Your task to perform on an android device: Open a new Chrome incognito window Image 0: 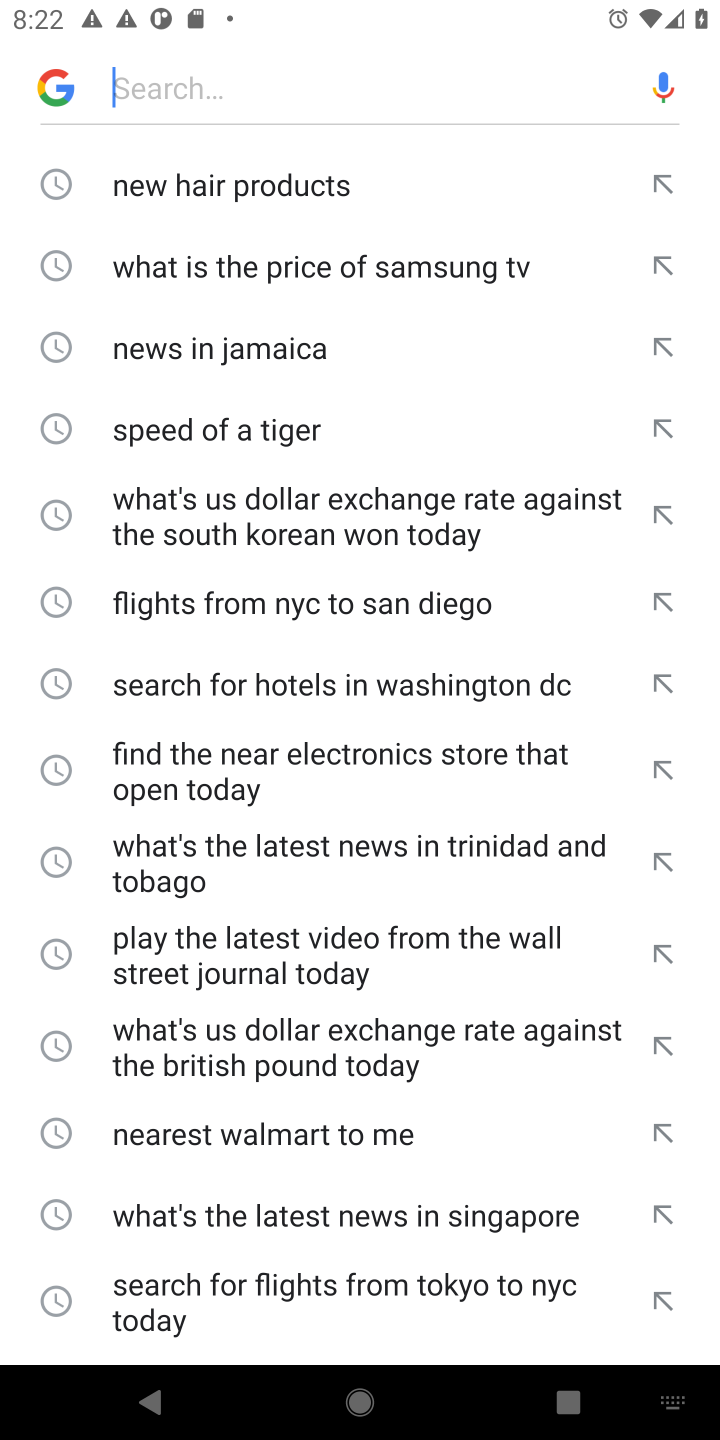
Step 0: press home button
Your task to perform on an android device: Open a new Chrome incognito window Image 1: 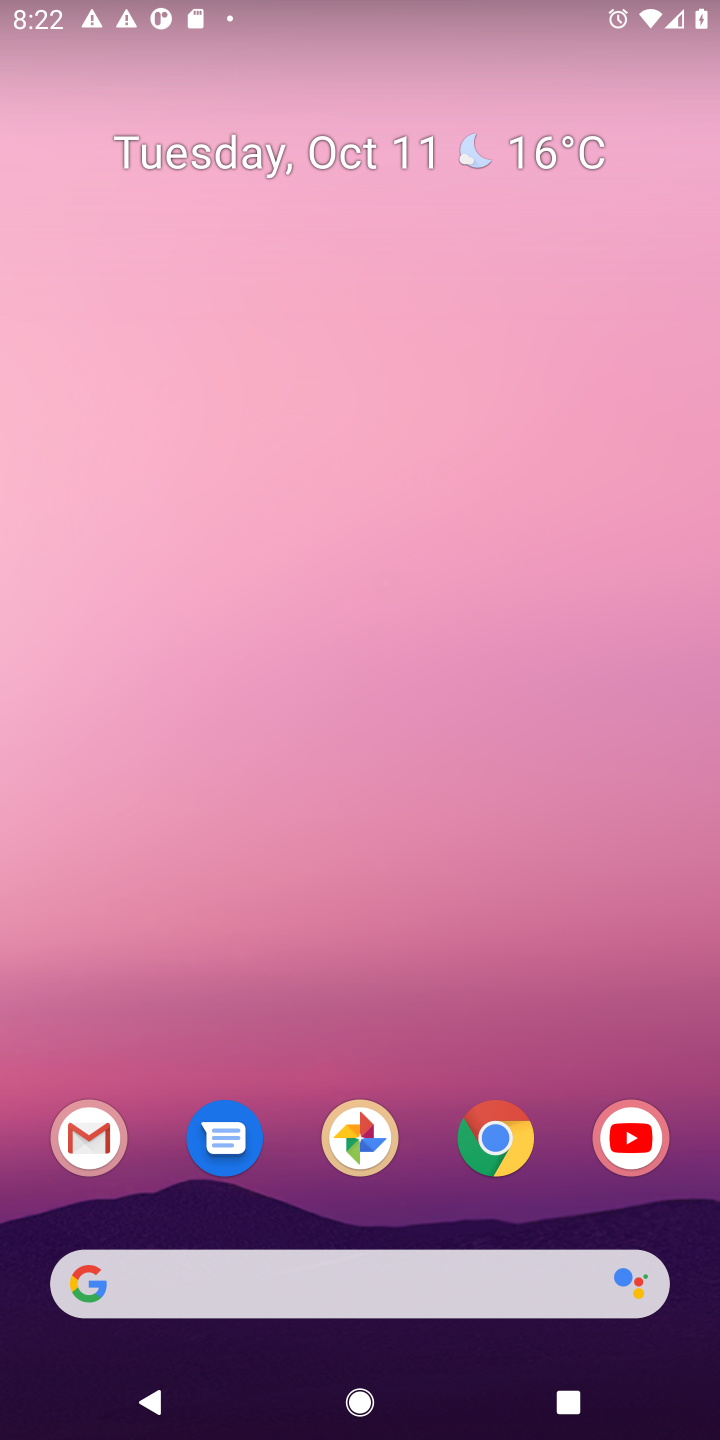
Step 1: click (491, 1156)
Your task to perform on an android device: Open a new Chrome incognito window Image 2: 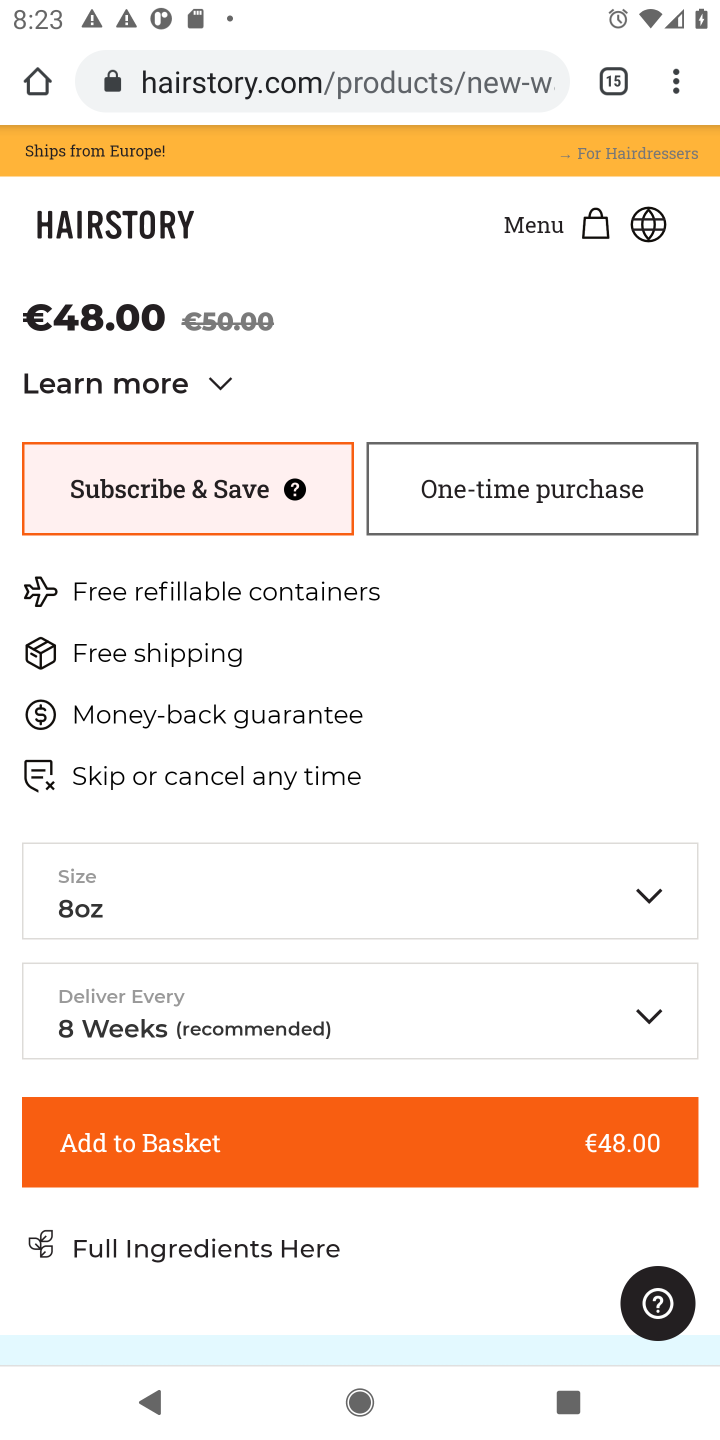
Step 2: click (668, 84)
Your task to perform on an android device: Open a new Chrome incognito window Image 3: 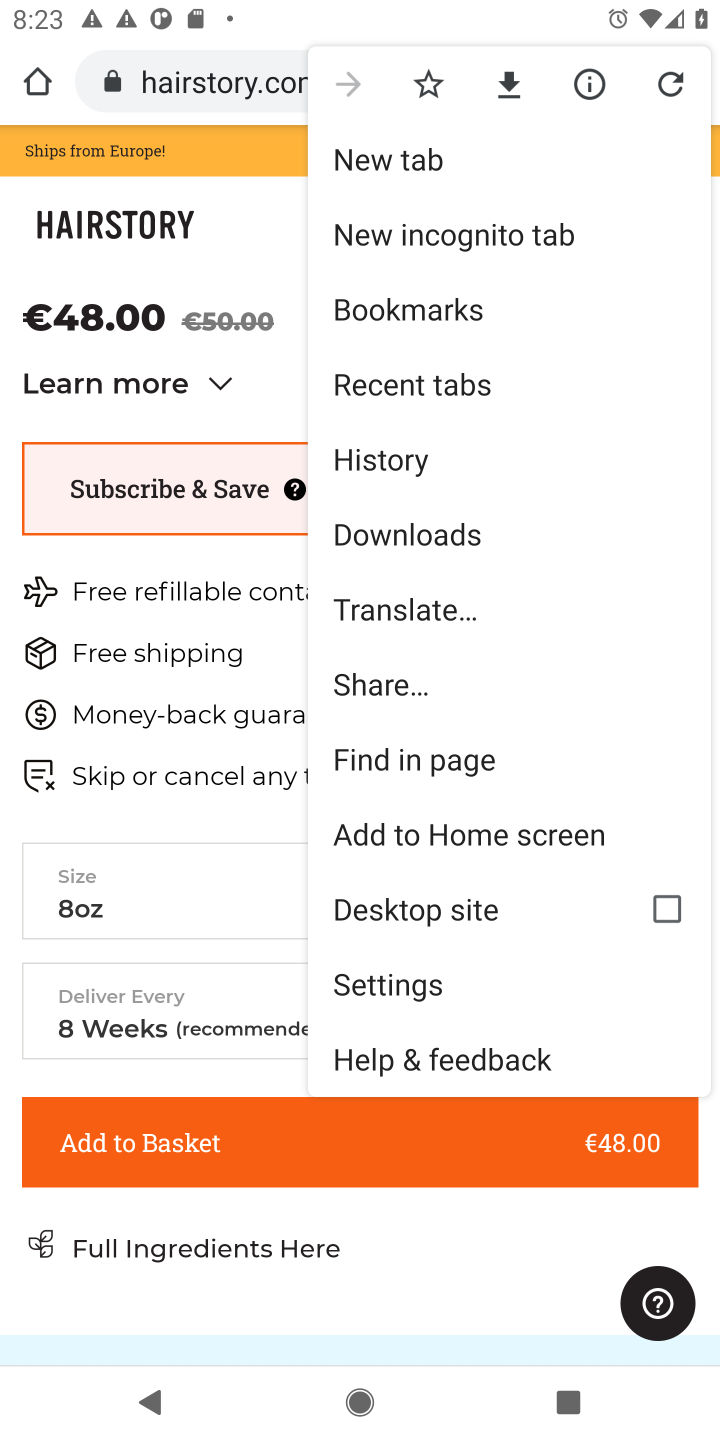
Step 3: click (418, 156)
Your task to perform on an android device: Open a new Chrome incognito window Image 4: 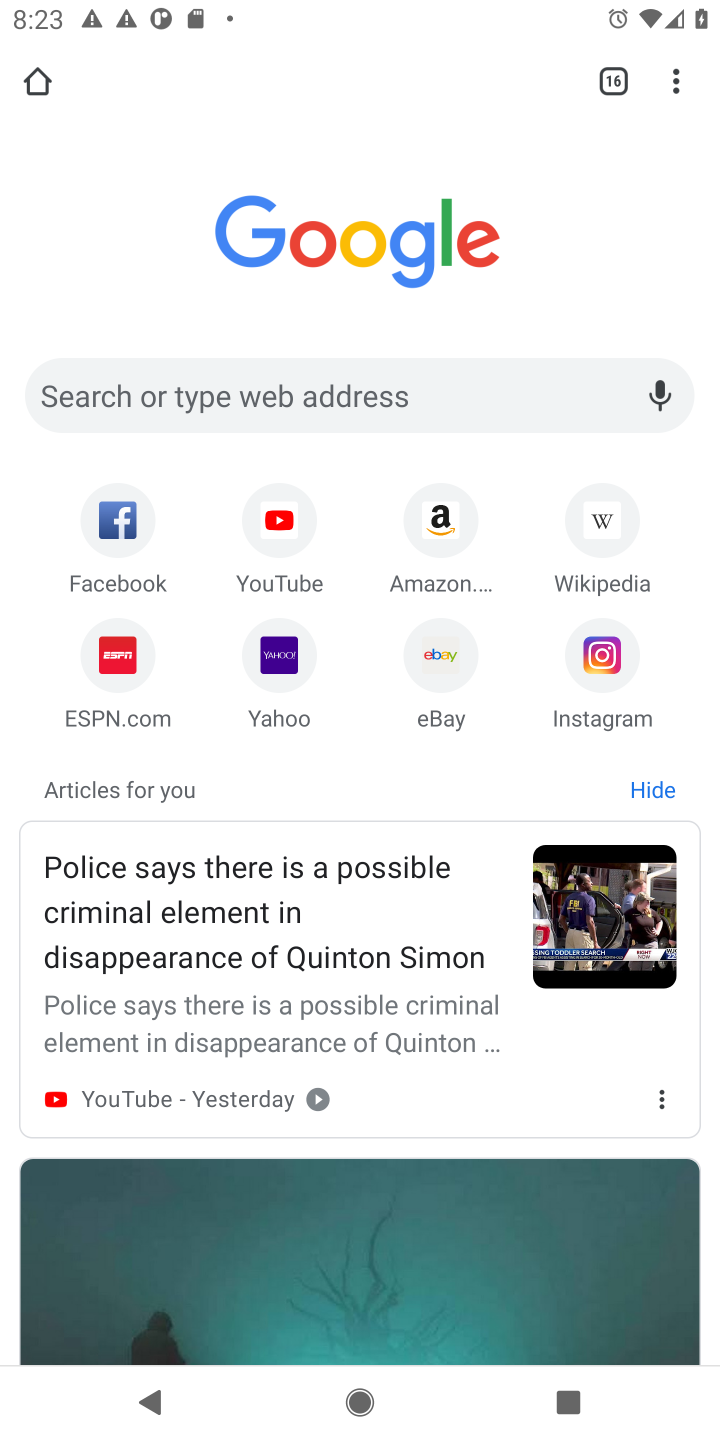
Step 4: click (669, 81)
Your task to perform on an android device: Open a new Chrome incognito window Image 5: 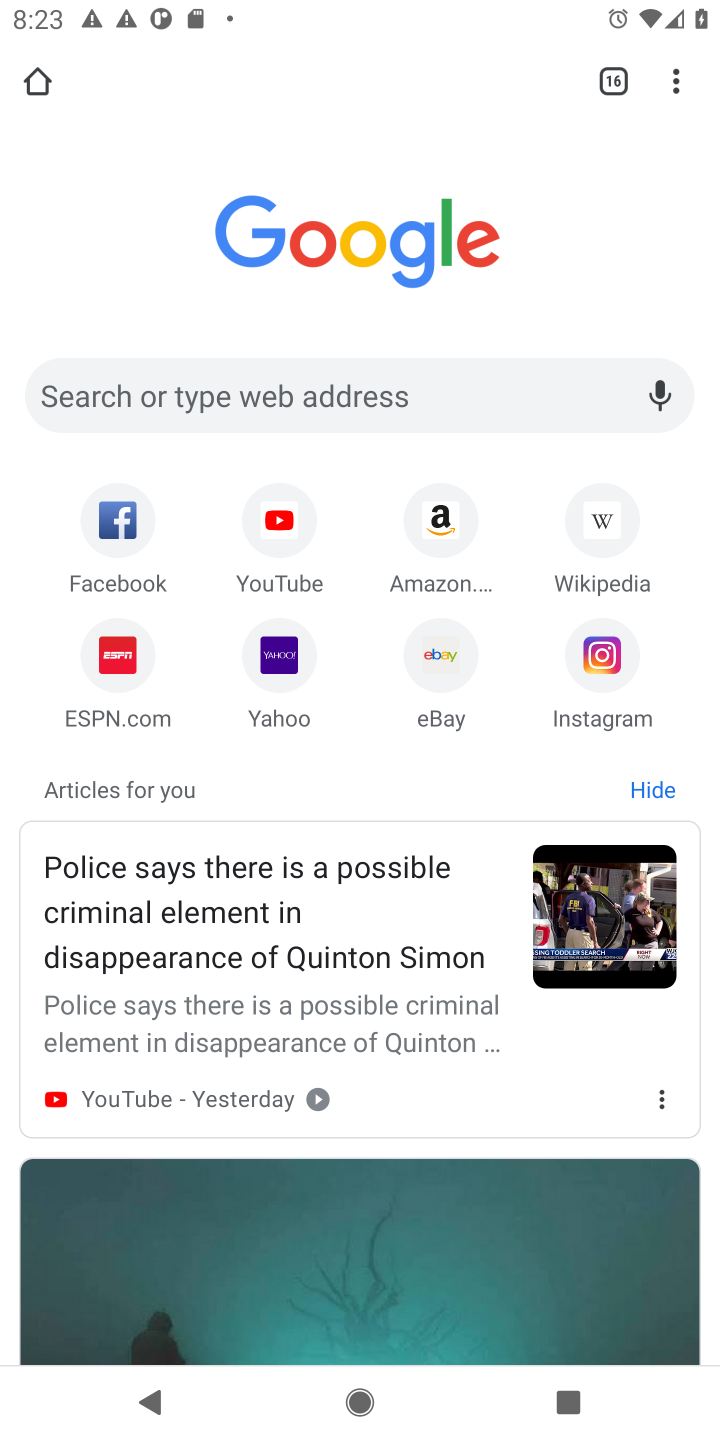
Step 5: click (669, 79)
Your task to perform on an android device: Open a new Chrome incognito window Image 6: 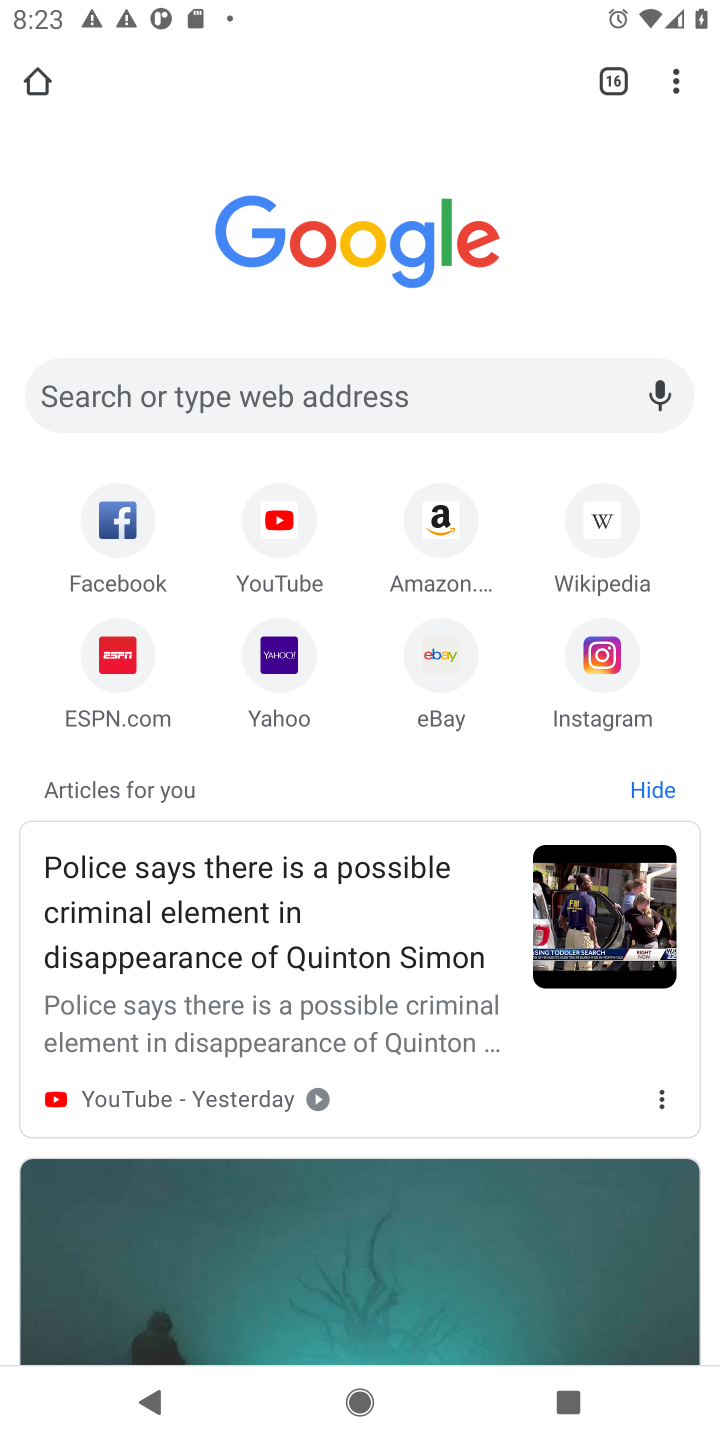
Step 6: click (656, 84)
Your task to perform on an android device: Open a new Chrome incognito window Image 7: 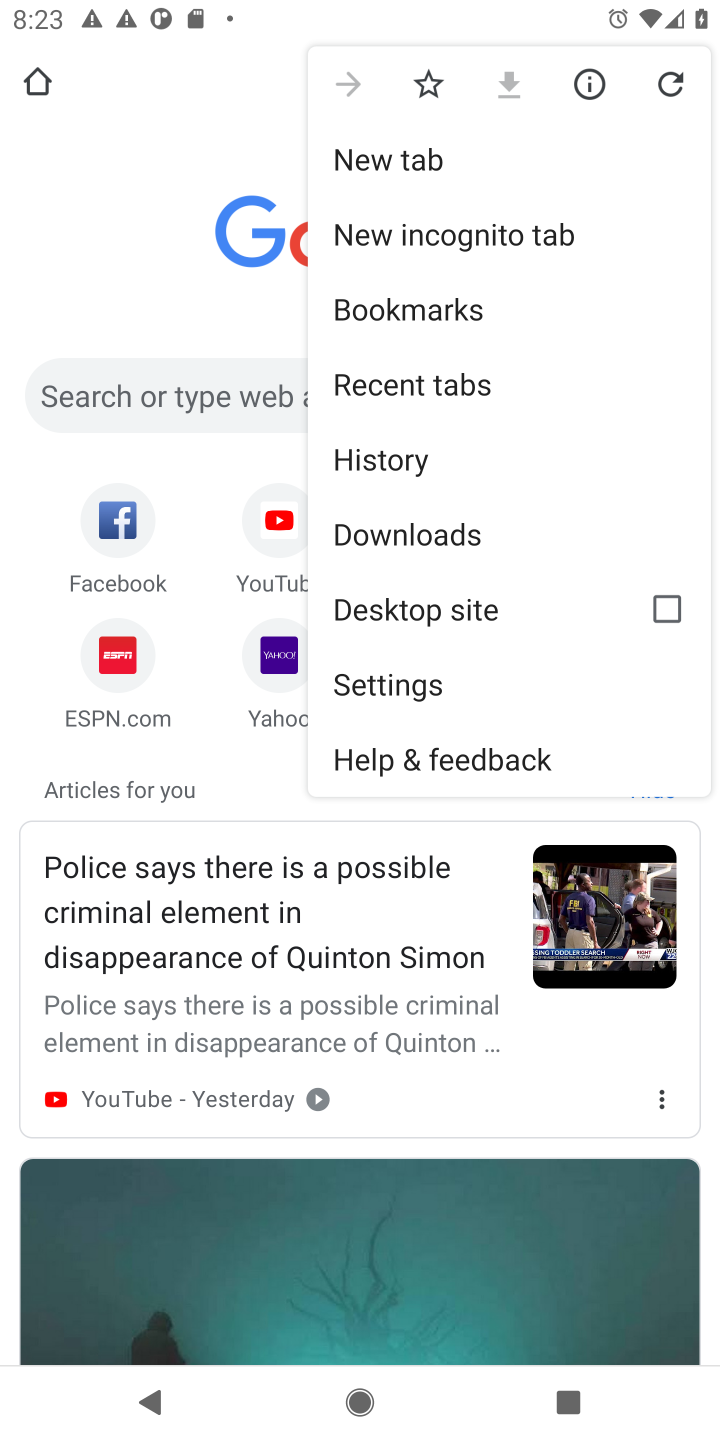
Step 7: click (467, 227)
Your task to perform on an android device: Open a new Chrome incognito window Image 8: 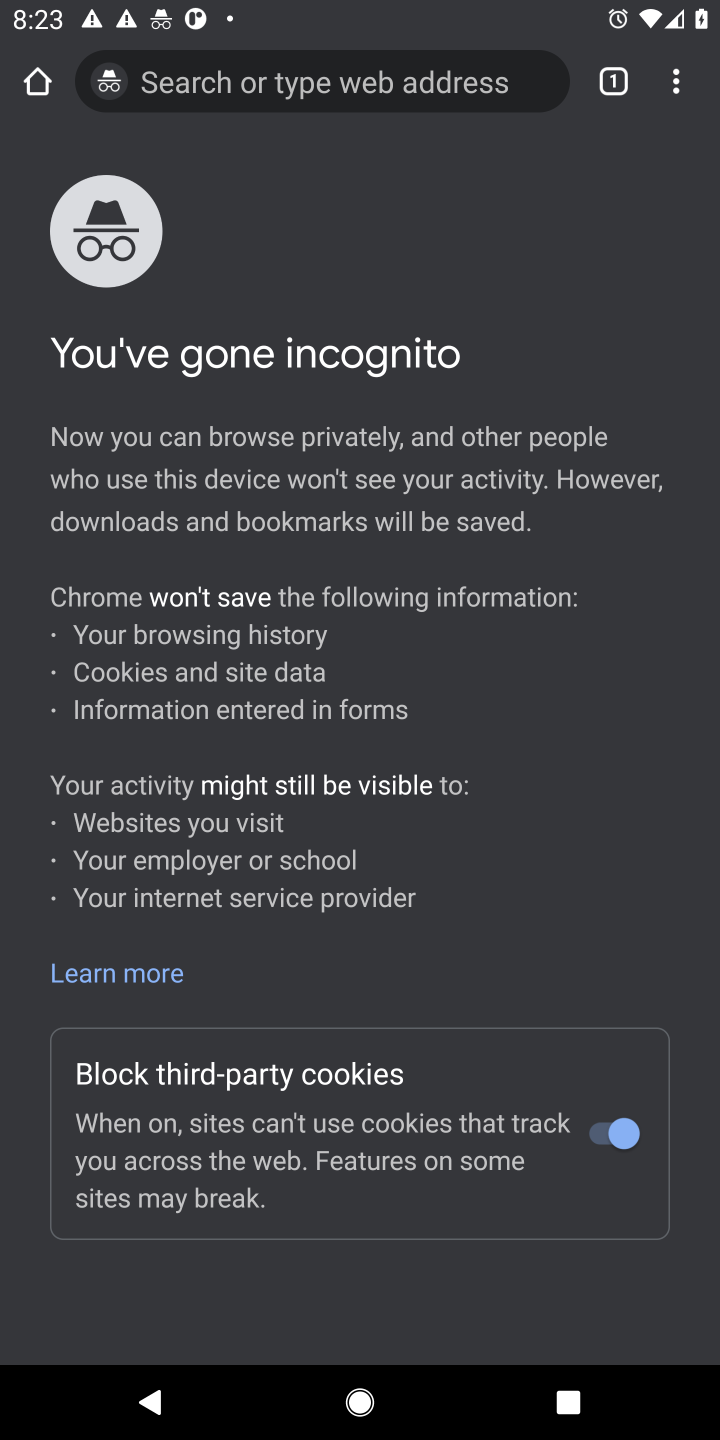
Step 8: task complete